Your task to perform on an android device: turn on translation in the chrome app Image 0: 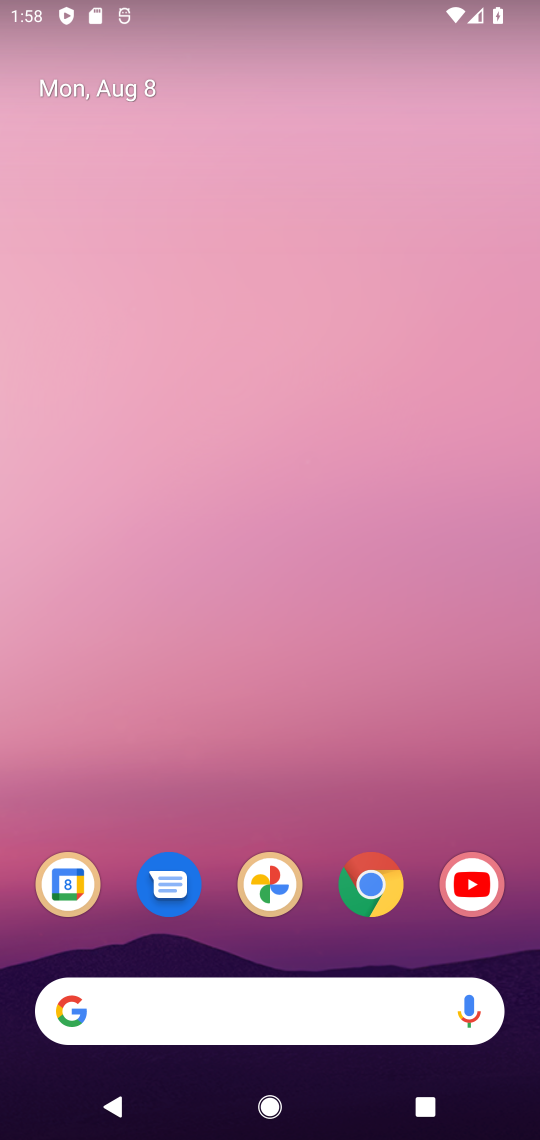
Step 0: click (364, 877)
Your task to perform on an android device: turn on translation in the chrome app Image 1: 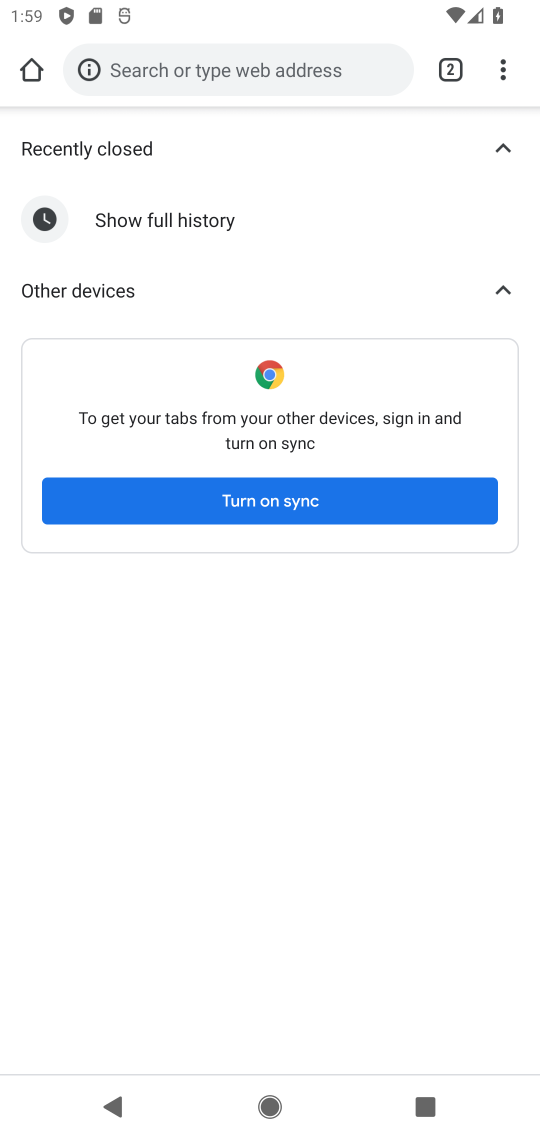
Step 1: click (507, 67)
Your task to perform on an android device: turn on translation in the chrome app Image 2: 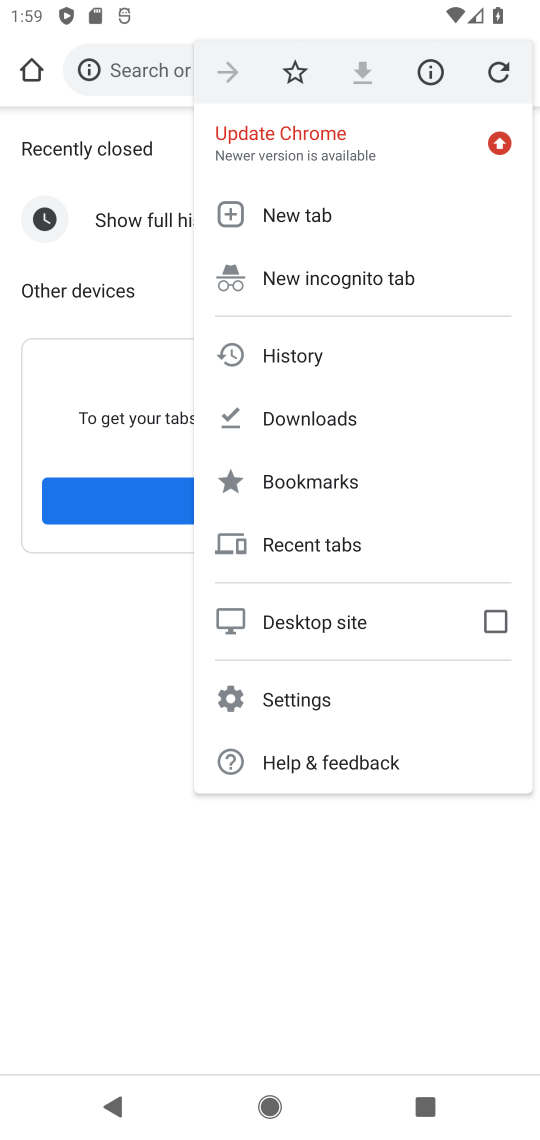
Step 2: click (333, 687)
Your task to perform on an android device: turn on translation in the chrome app Image 3: 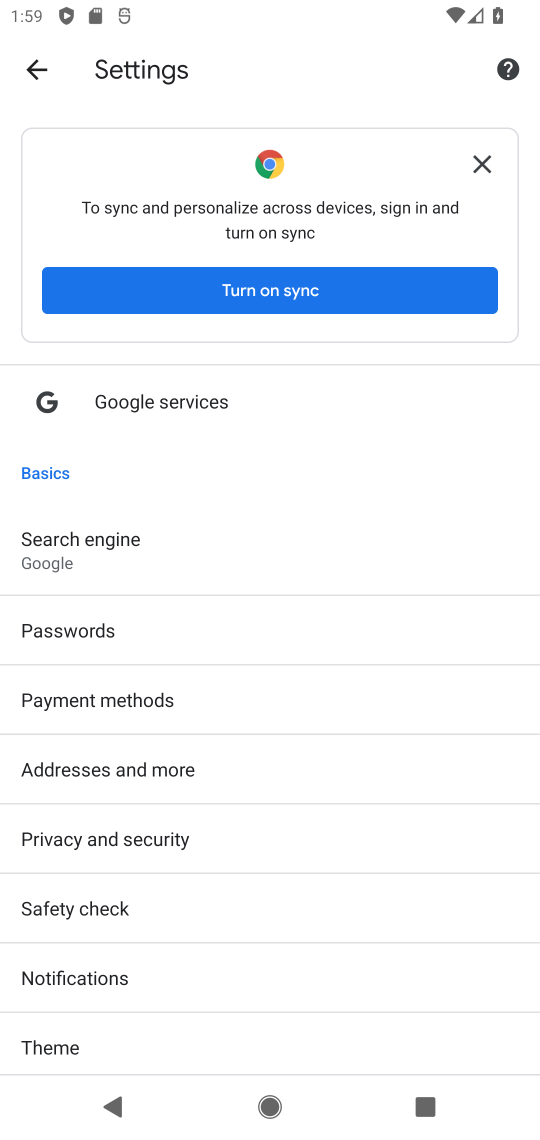
Step 3: drag from (278, 902) to (278, 512)
Your task to perform on an android device: turn on translation in the chrome app Image 4: 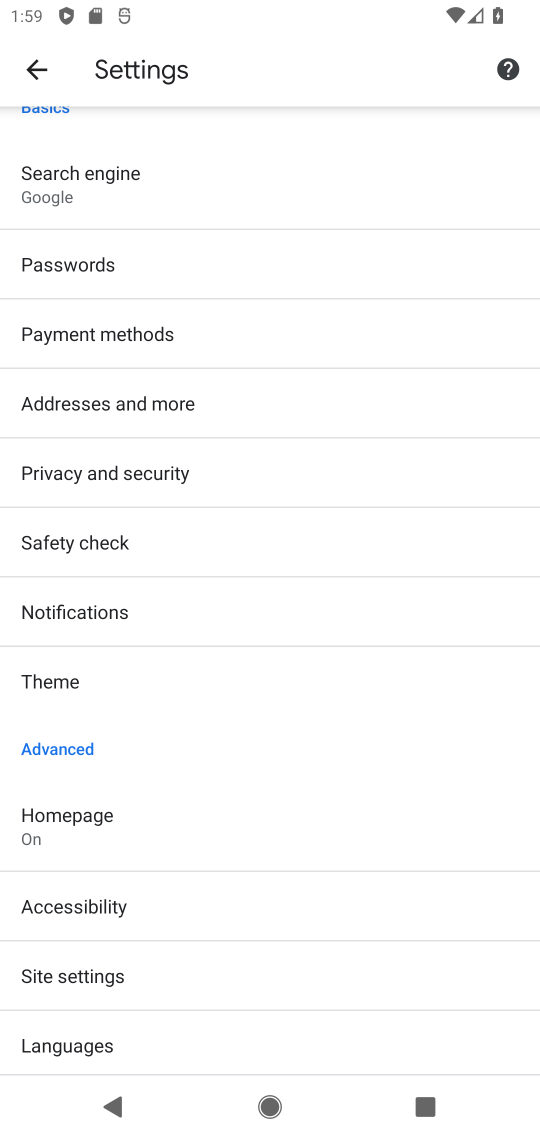
Step 4: drag from (238, 955) to (235, 671)
Your task to perform on an android device: turn on translation in the chrome app Image 5: 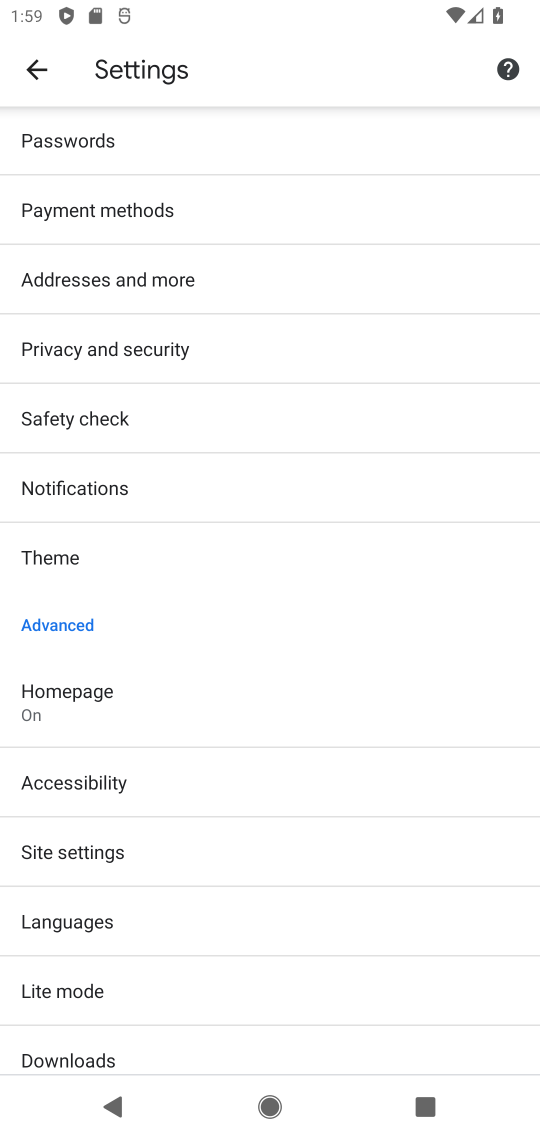
Step 5: click (105, 918)
Your task to perform on an android device: turn on translation in the chrome app Image 6: 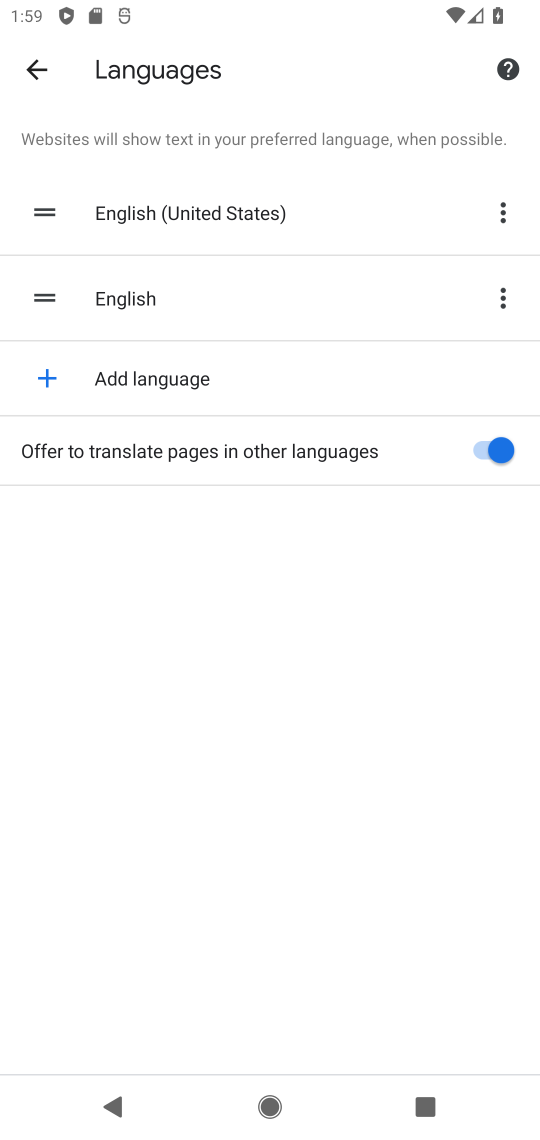
Step 6: task complete